Your task to perform on an android device: make emails show in primary in the gmail app Image 0: 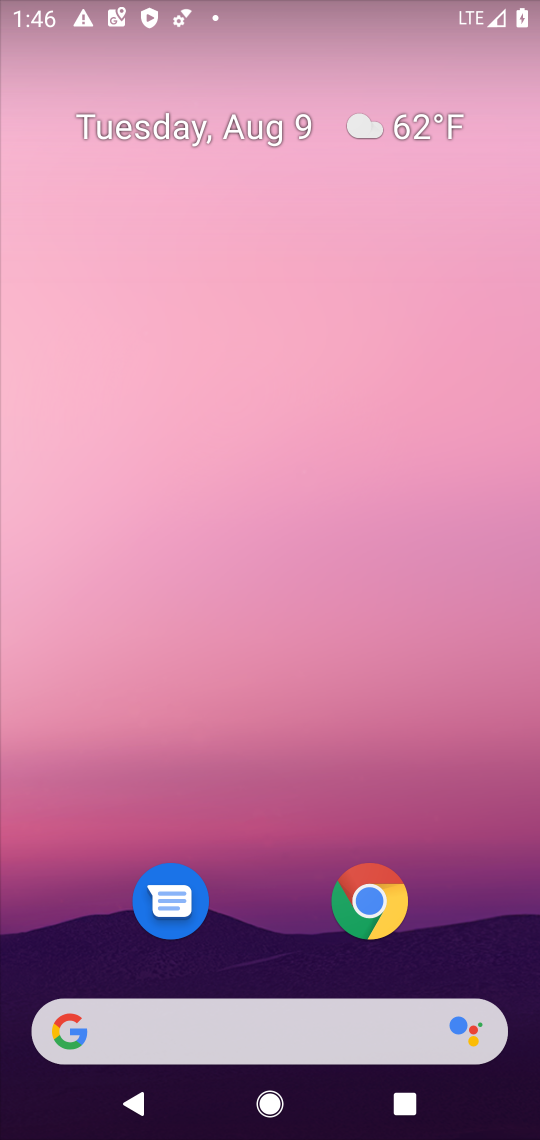
Step 0: drag from (505, 965) to (399, 267)
Your task to perform on an android device: make emails show in primary in the gmail app Image 1: 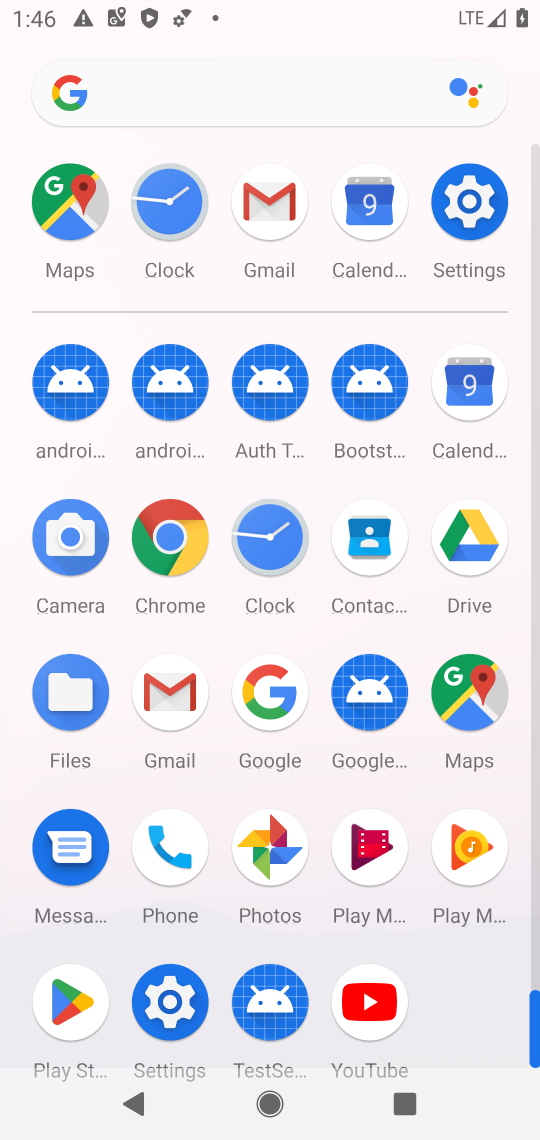
Step 1: click (168, 693)
Your task to perform on an android device: make emails show in primary in the gmail app Image 2: 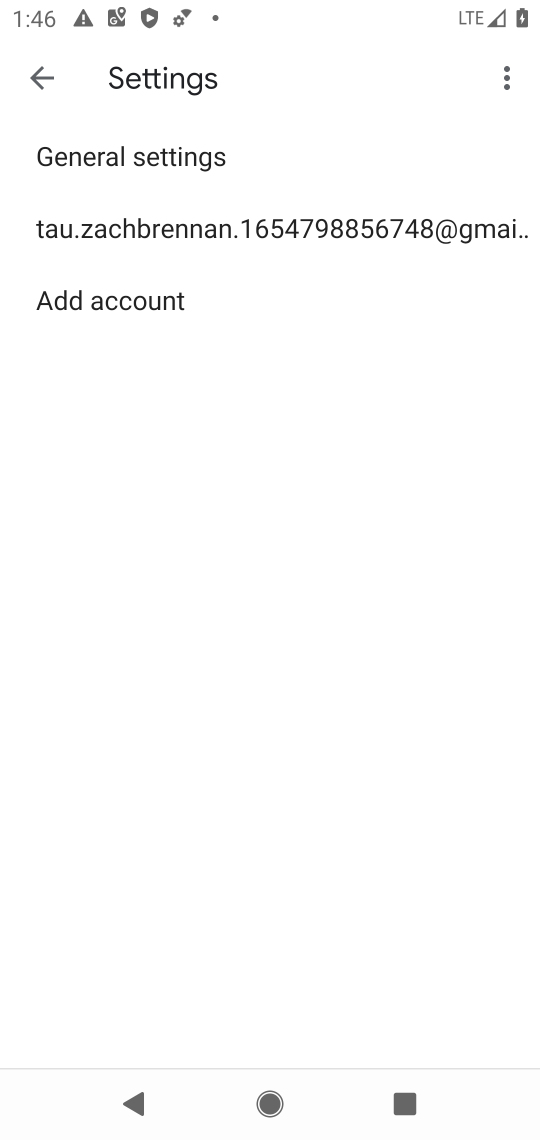
Step 2: click (249, 230)
Your task to perform on an android device: make emails show in primary in the gmail app Image 3: 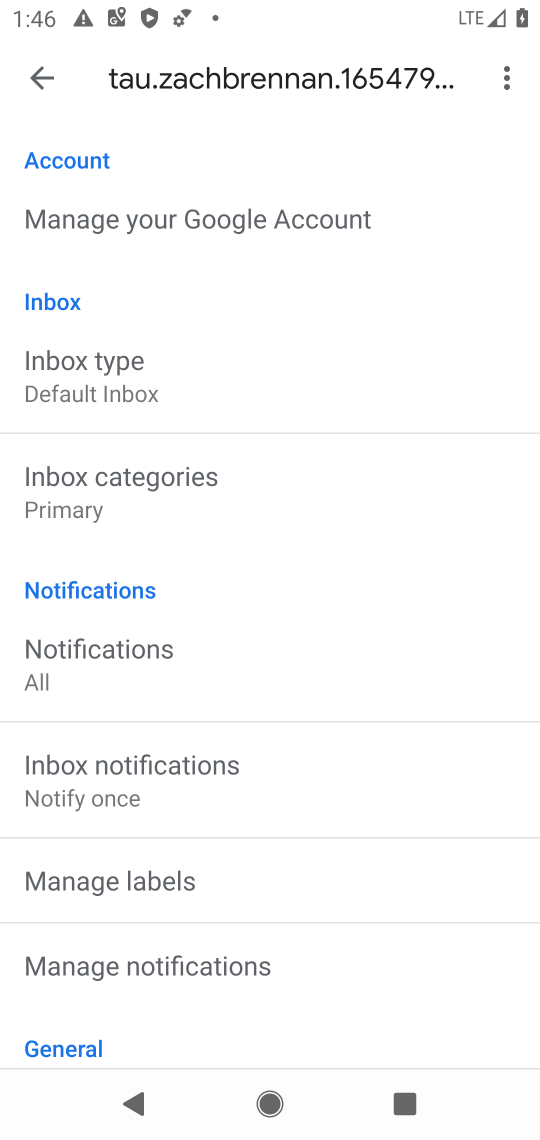
Step 3: click (96, 477)
Your task to perform on an android device: make emails show in primary in the gmail app Image 4: 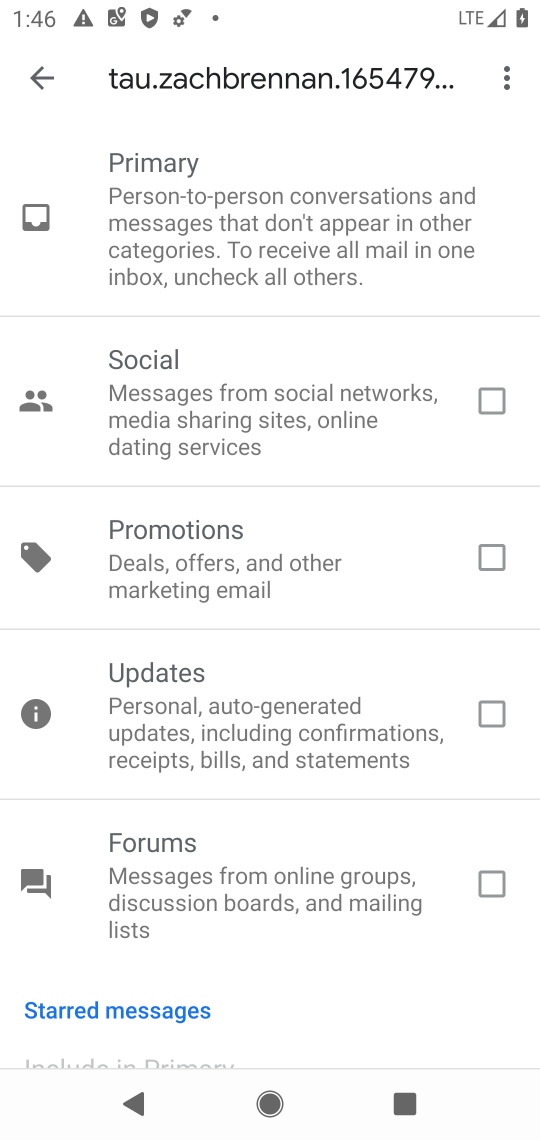
Step 4: task complete